Your task to perform on an android device: delete browsing data in the chrome app Image 0: 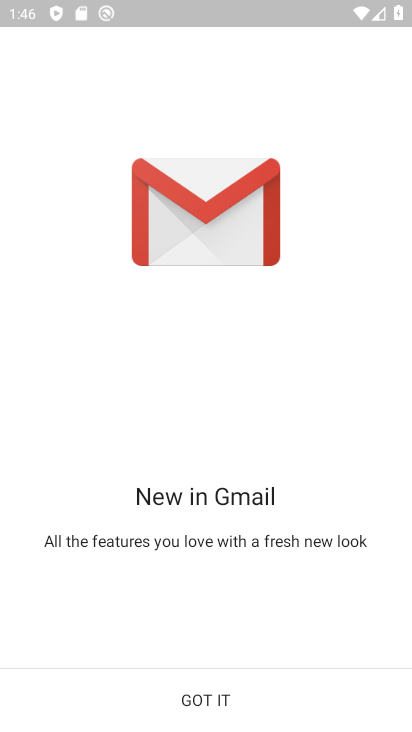
Step 0: press back button
Your task to perform on an android device: delete browsing data in the chrome app Image 1: 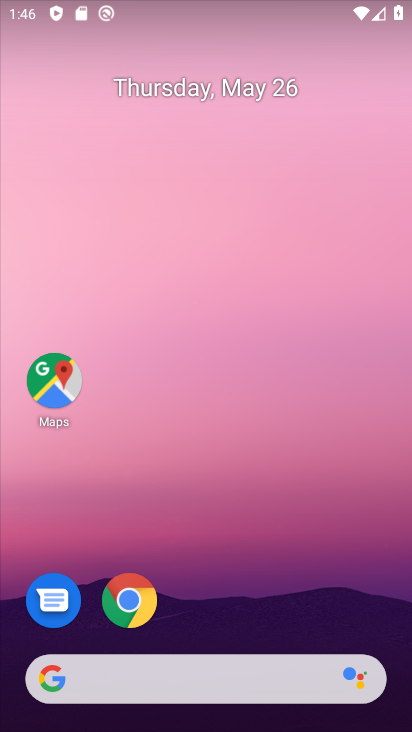
Step 1: drag from (232, 339) to (186, 32)
Your task to perform on an android device: delete browsing data in the chrome app Image 2: 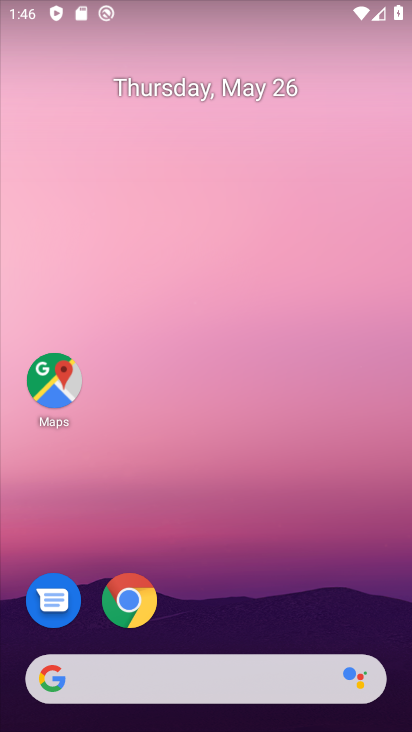
Step 2: drag from (266, 623) to (318, 9)
Your task to perform on an android device: delete browsing data in the chrome app Image 3: 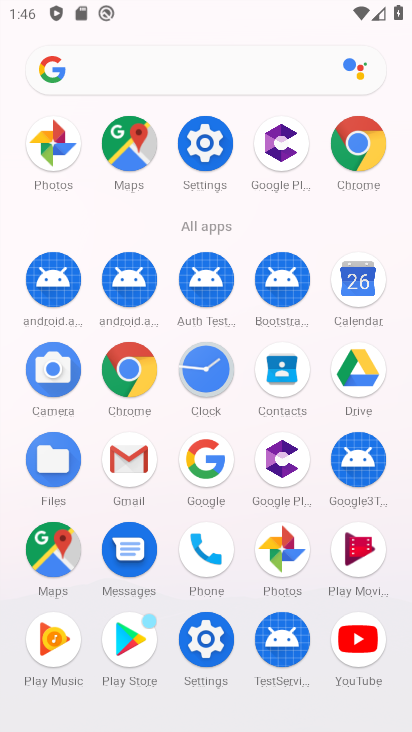
Step 3: click (129, 369)
Your task to perform on an android device: delete browsing data in the chrome app Image 4: 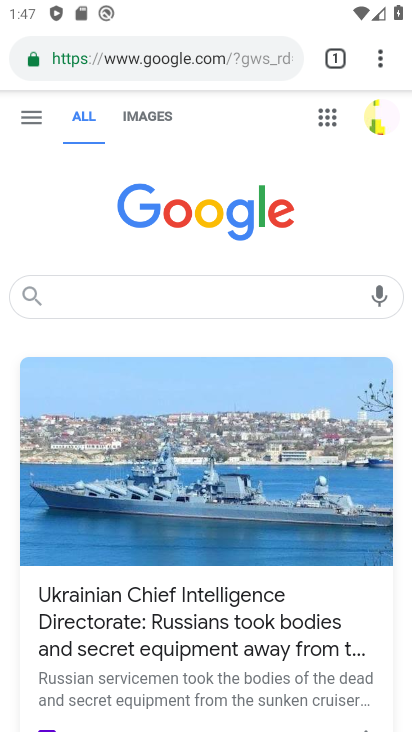
Step 4: drag from (378, 59) to (195, 299)
Your task to perform on an android device: delete browsing data in the chrome app Image 5: 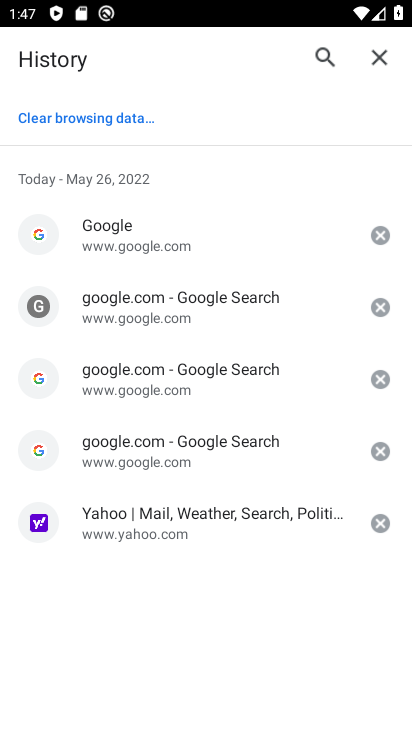
Step 5: click (119, 128)
Your task to perform on an android device: delete browsing data in the chrome app Image 6: 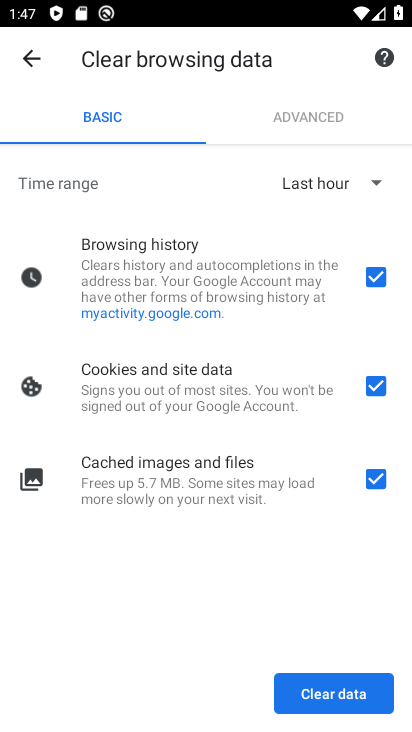
Step 6: click (359, 697)
Your task to perform on an android device: delete browsing data in the chrome app Image 7: 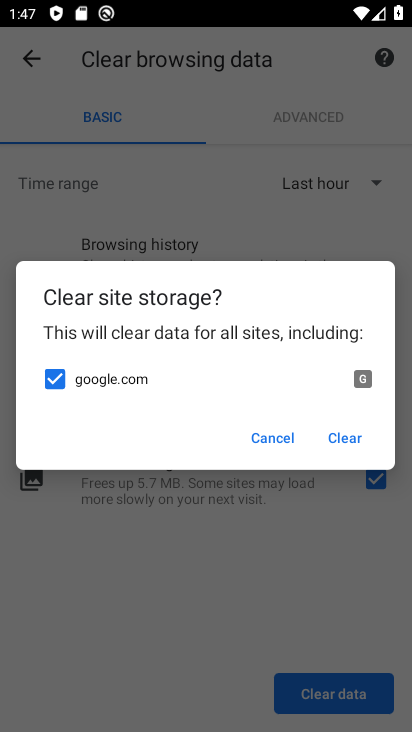
Step 7: click (344, 436)
Your task to perform on an android device: delete browsing data in the chrome app Image 8: 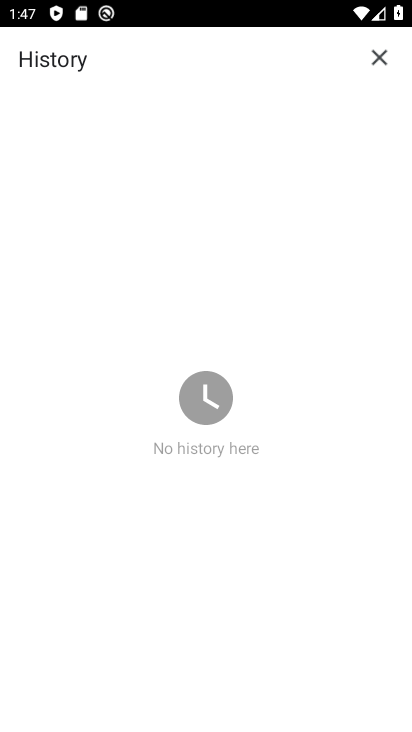
Step 8: task complete